Your task to perform on an android device: Open settings Image 0: 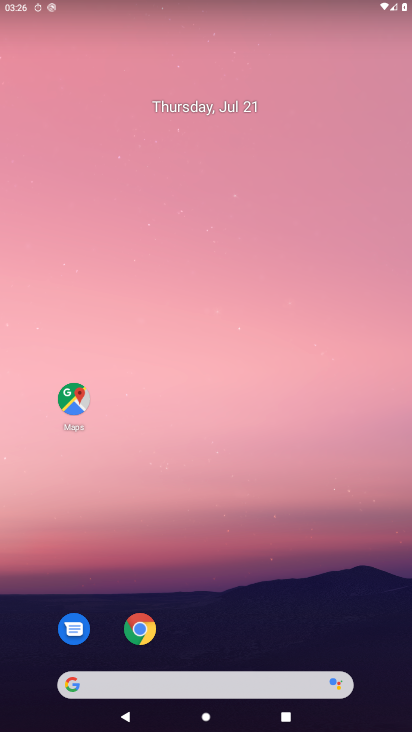
Step 0: drag from (116, 306) to (167, 16)
Your task to perform on an android device: Open settings Image 1: 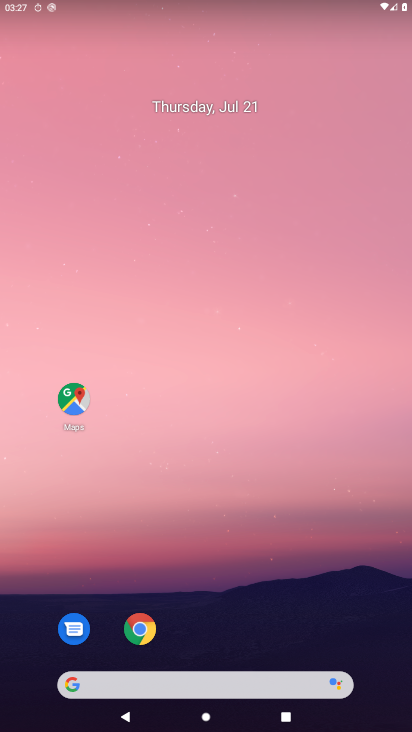
Step 1: drag from (62, 555) to (89, 408)
Your task to perform on an android device: Open settings Image 2: 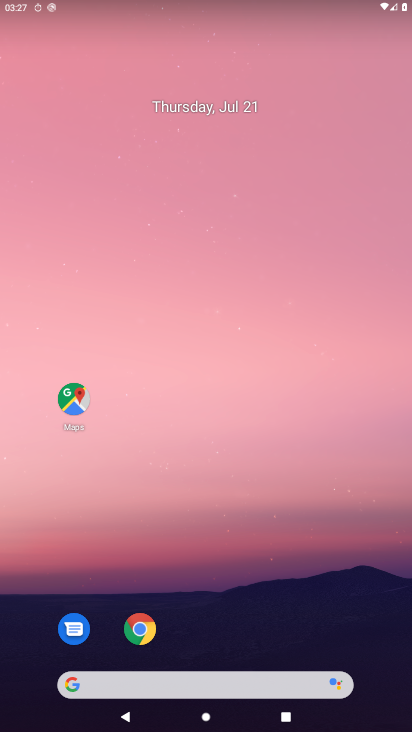
Step 2: drag from (48, 657) to (156, 236)
Your task to perform on an android device: Open settings Image 3: 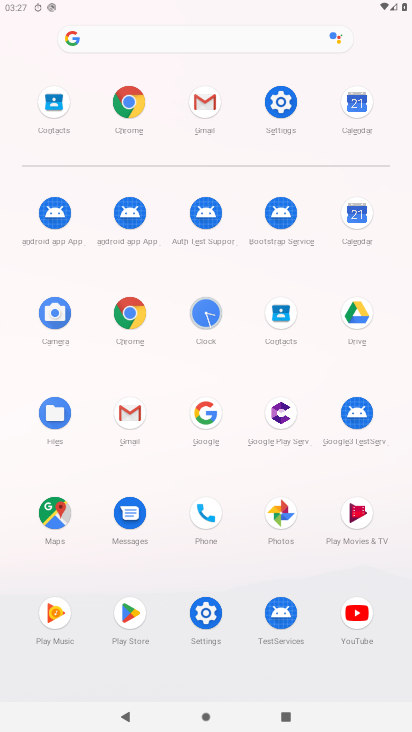
Step 3: click (215, 621)
Your task to perform on an android device: Open settings Image 4: 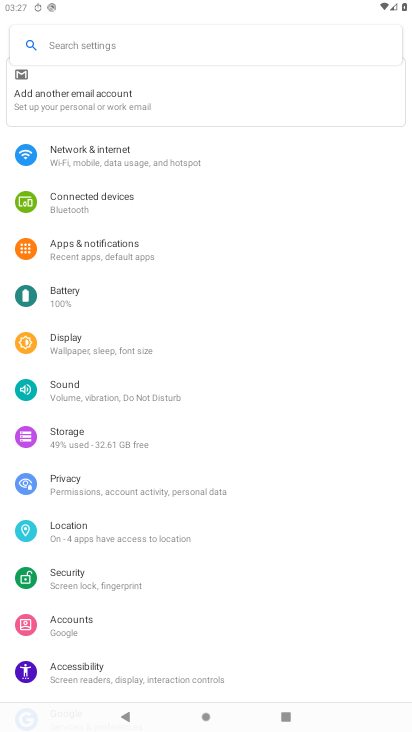
Step 4: task complete